Your task to perform on an android device: Go to Google Image 0: 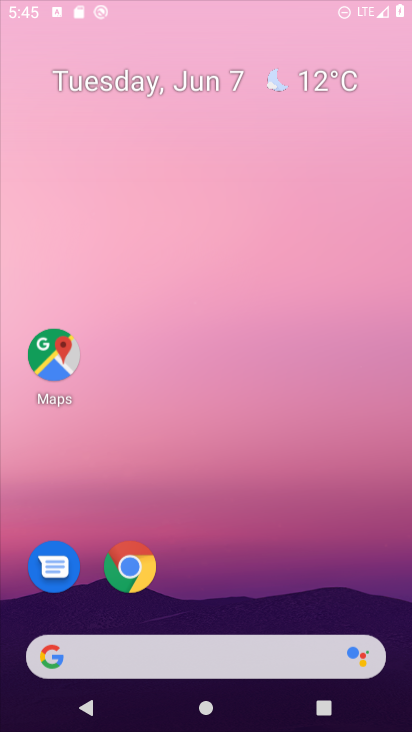
Step 0: drag from (325, 327) to (308, 4)
Your task to perform on an android device: Go to Google Image 1: 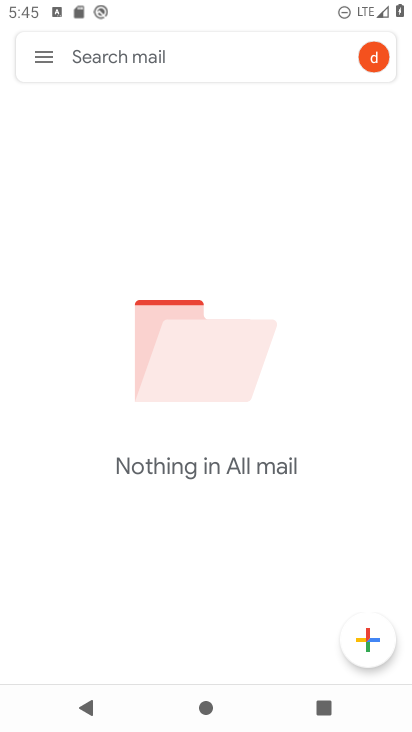
Step 1: press home button
Your task to perform on an android device: Go to Google Image 2: 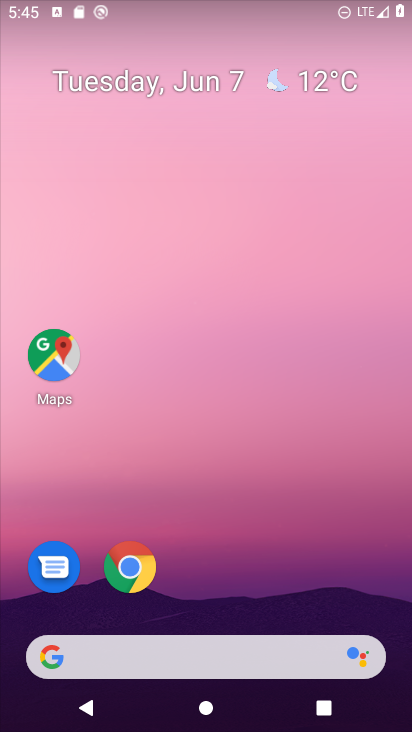
Step 2: drag from (279, 633) to (271, 0)
Your task to perform on an android device: Go to Google Image 3: 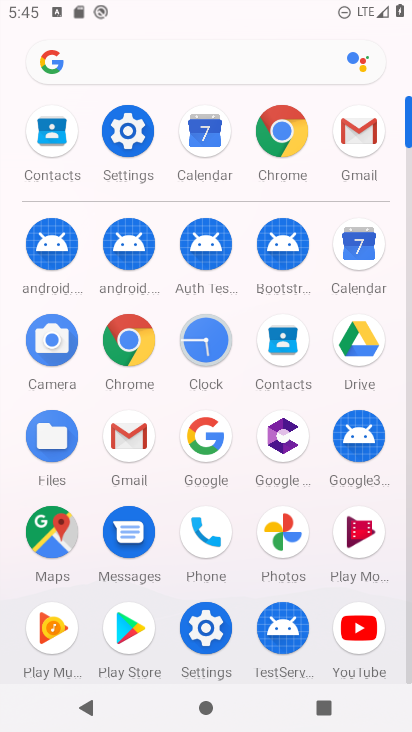
Step 3: click (131, 355)
Your task to perform on an android device: Go to Google Image 4: 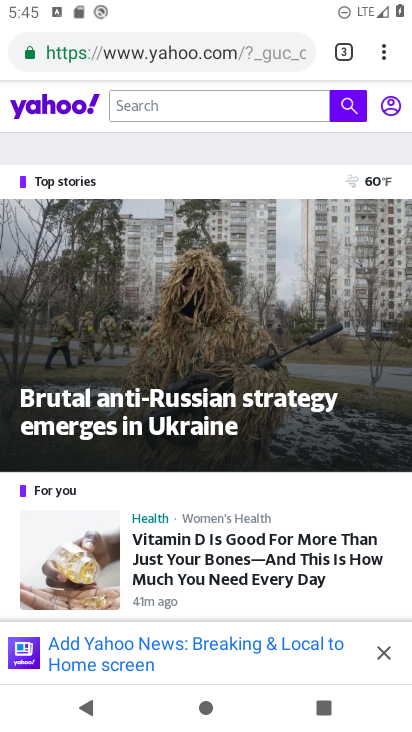
Step 4: click (387, 51)
Your task to perform on an android device: Go to Google Image 5: 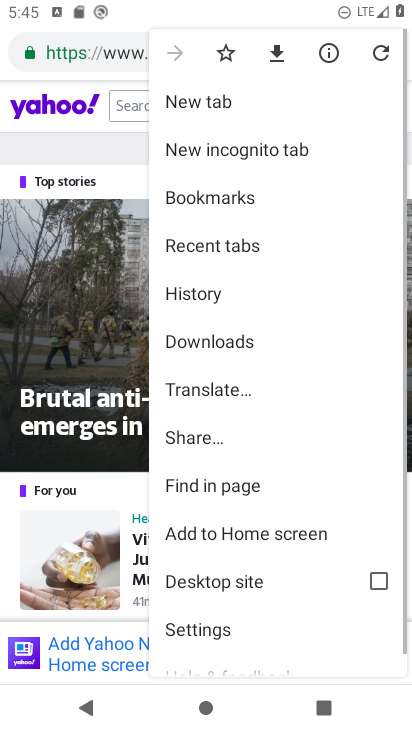
Step 5: click (299, 106)
Your task to perform on an android device: Go to Google Image 6: 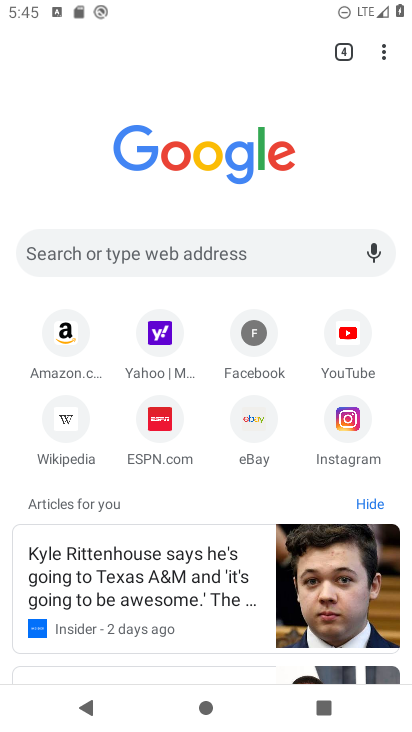
Step 6: task complete